Your task to perform on an android device: Search for beats solo 3 on newegg.com, select the first entry, add it to the cart, then select checkout. Image 0: 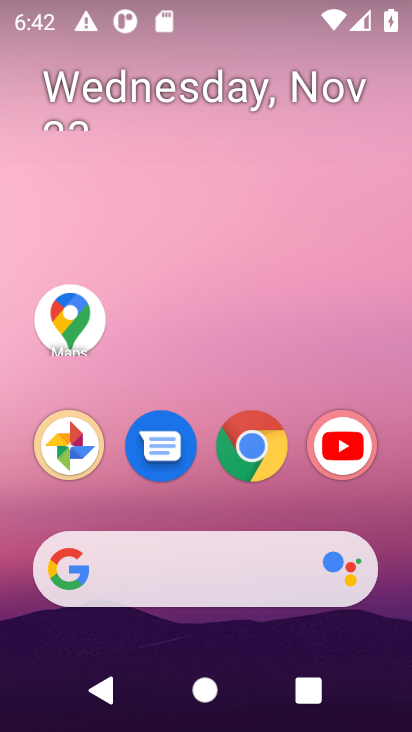
Step 0: click (195, 574)
Your task to perform on an android device: Search for beats solo 3 on newegg.com, select the first entry, add it to the cart, then select checkout. Image 1: 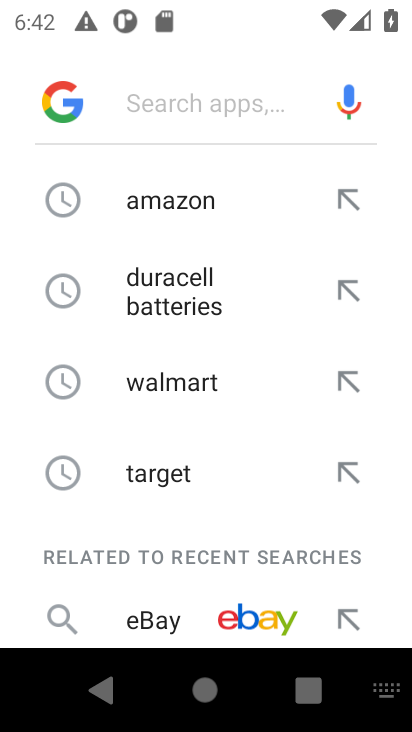
Step 1: type "newegg.com"
Your task to perform on an android device: Search for beats solo 3 on newegg.com, select the first entry, add it to the cart, then select checkout. Image 2: 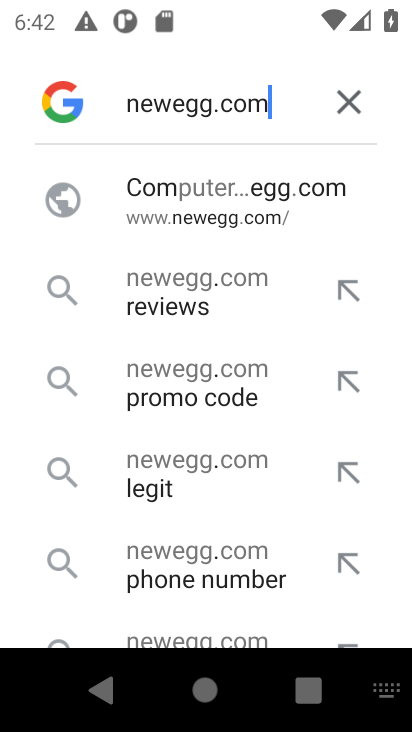
Step 2: click (139, 182)
Your task to perform on an android device: Search for beats solo 3 on newegg.com, select the first entry, add it to the cart, then select checkout. Image 3: 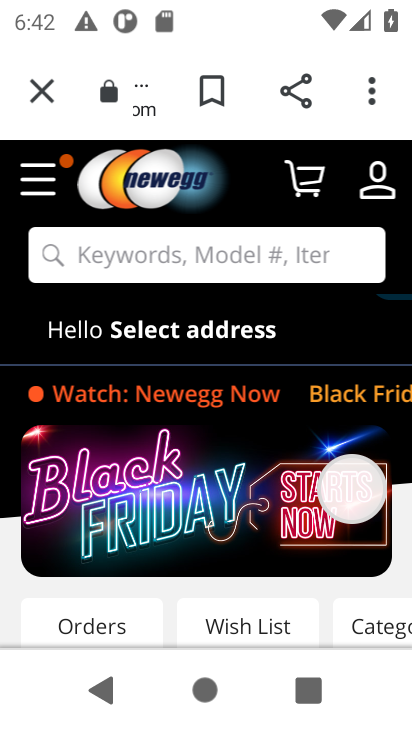
Step 3: click (133, 251)
Your task to perform on an android device: Search for beats solo 3 on newegg.com, select the first entry, add it to the cart, then select checkout. Image 4: 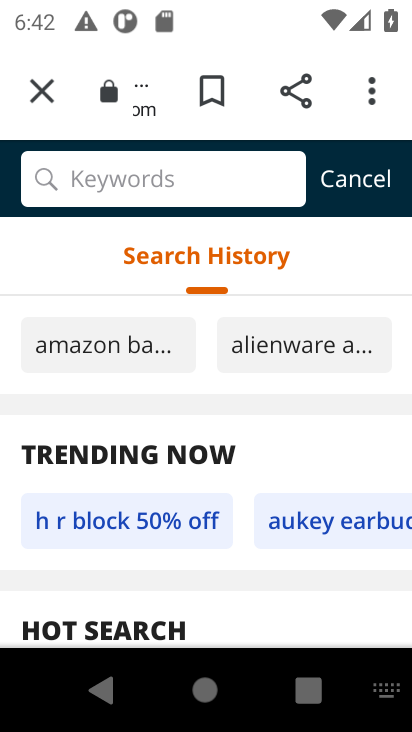
Step 4: type "beats  solo 3"
Your task to perform on an android device: Search for beats solo 3 on newegg.com, select the first entry, add it to the cart, then select checkout. Image 5: 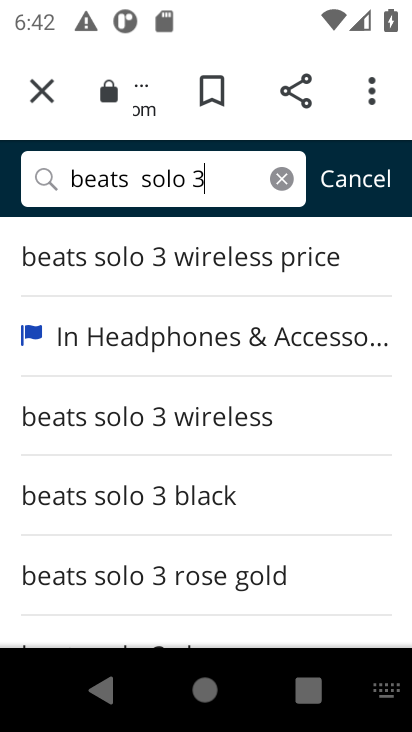
Step 5: click (186, 282)
Your task to perform on an android device: Search for beats solo 3 on newegg.com, select the first entry, add it to the cart, then select checkout. Image 6: 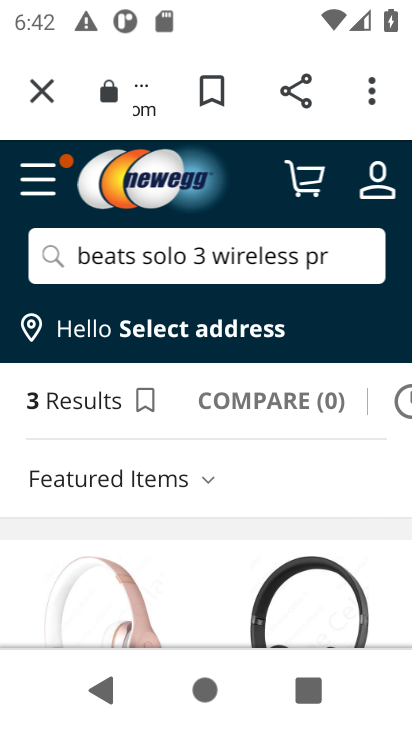
Step 6: drag from (175, 553) to (213, 191)
Your task to perform on an android device: Search for beats solo 3 on newegg.com, select the first entry, add it to the cart, then select checkout. Image 7: 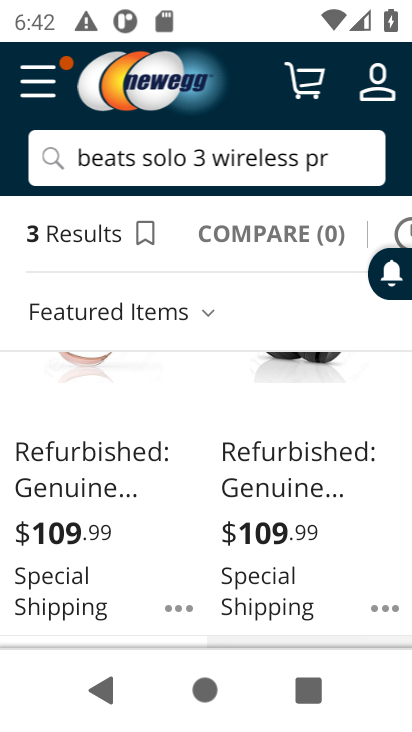
Step 7: click (120, 518)
Your task to perform on an android device: Search for beats solo 3 on newegg.com, select the first entry, add it to the cart, then select checkout. Image 8: 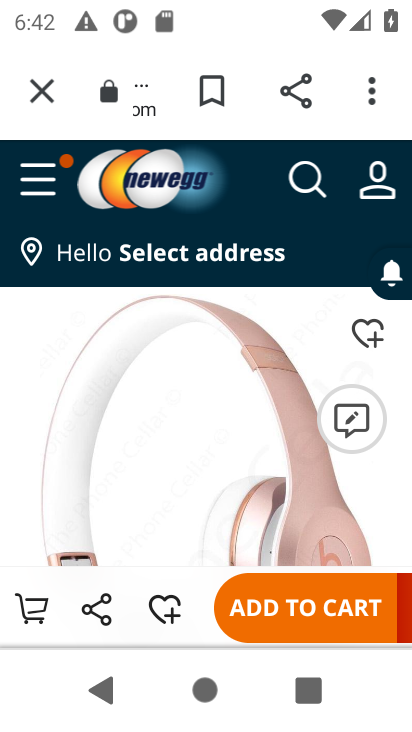
Step 8: click (251, 622)
Your task to perform on an android device: Search for beats solo 3 on newegg.com, select the first entry, add it to the cart, then select checkout. Image 9: 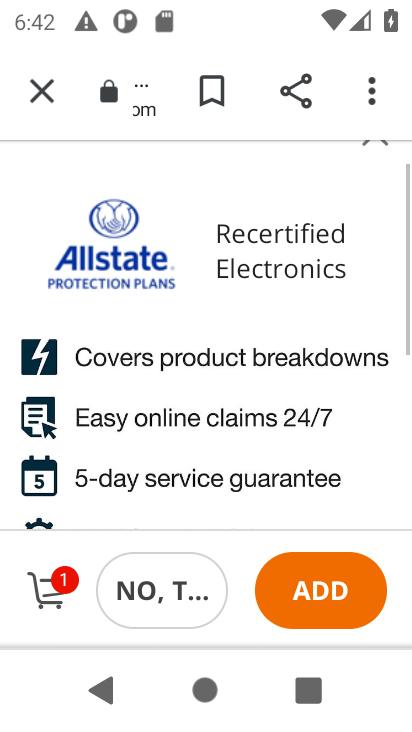
Step 9: task complete